Your task to perform on an android device: Go to CNN.com Image 0: 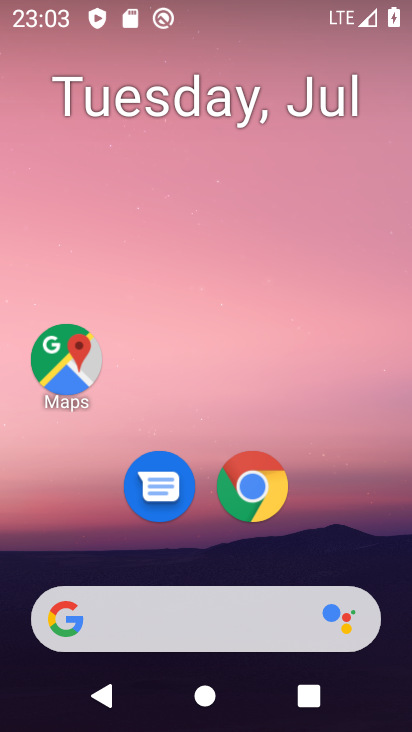
Step 0: drag from (332, 515) to (339, 182)
Your task to perform on an android device: Go to CNN.com Image 1: 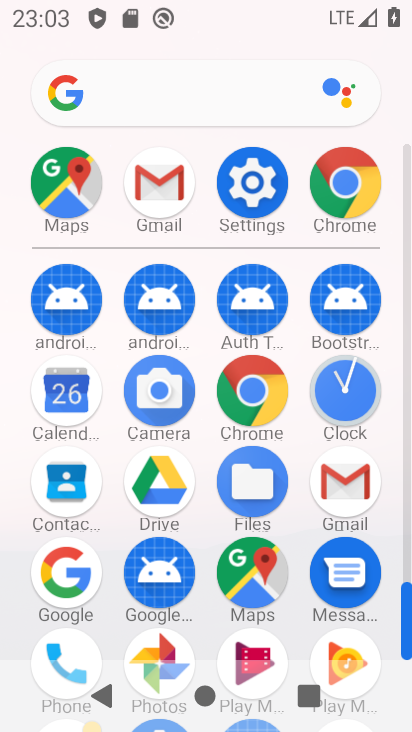
Step 1: click (262, 402)
Your task to perform on an android device: Go to CNN.com Image 2: 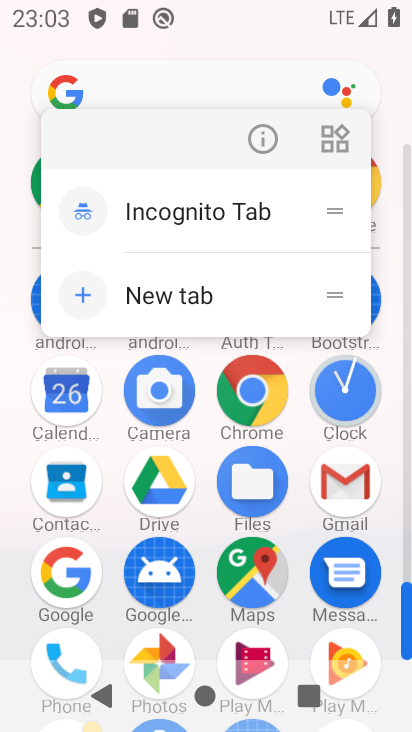
Step 2: click (262, 402)
Your task to perform on an android device: Go to CNN.com Image 3: 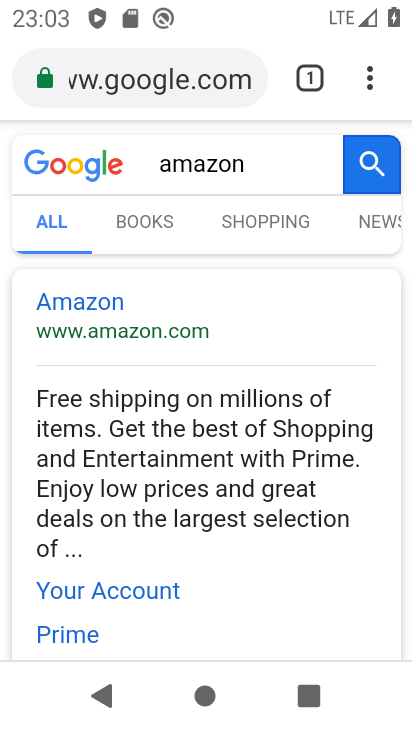
Step 3: click (219, 89)
Your task to perform on an android device: Go to CNN.com Image 4: 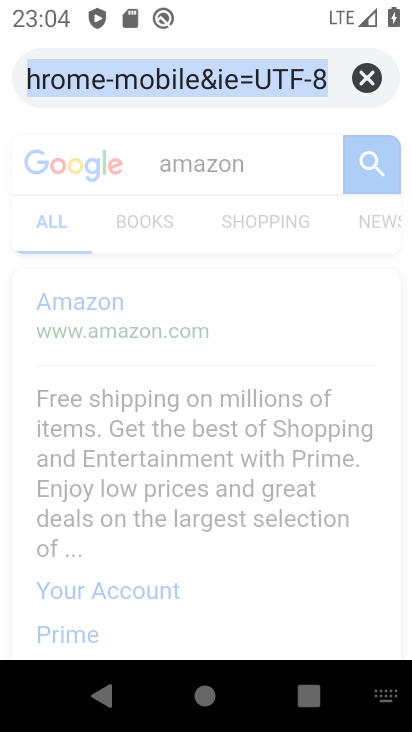
Step 4: type "cnn.com"
Your task to perform on an android device: Go to CNN.com Image 5: 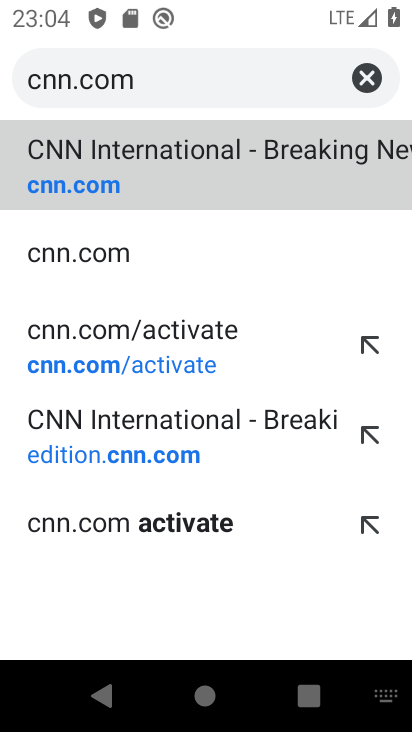
Step 5: click (294, 181)
Your task to perform on an android device: Go to CNN.com Image 6: 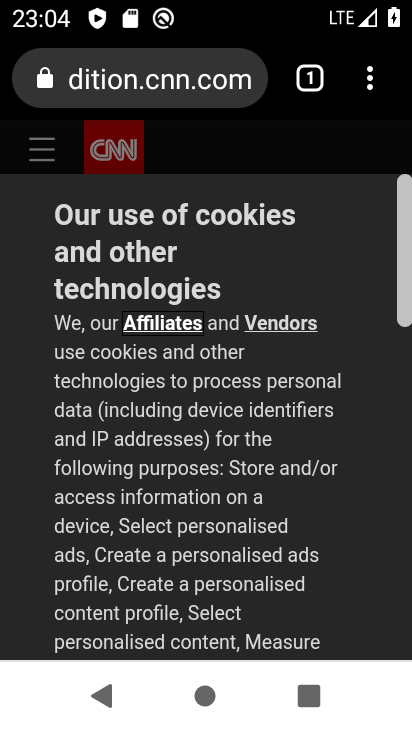
Step 6: task complete